Your task to perform on an android device: Turn off the flashlight Image 0: 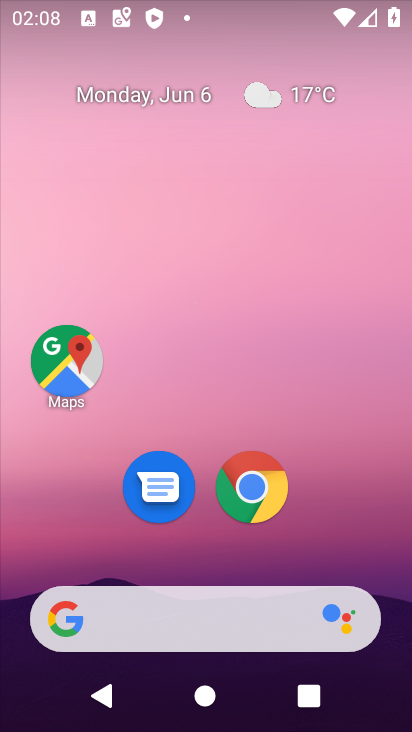
Step 0: drag from (235, 10) to (244, 460)
Your task to perform on an android device: Turn off the flashlight Image 1: 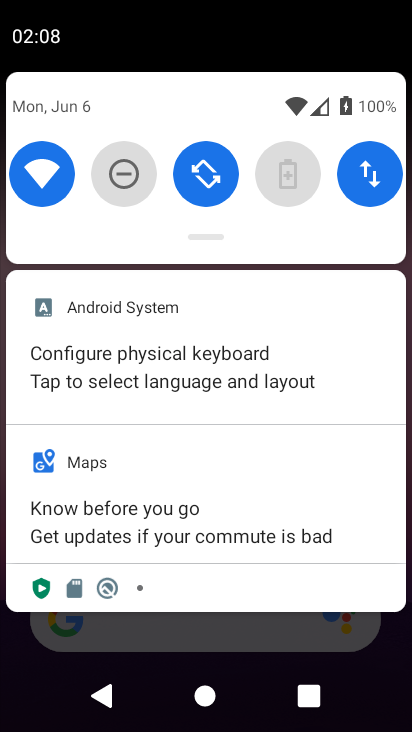
Step 1: drag from (200, 234) to (203, 469)
Your task to perform on an android device: Turn off the flashlight Image 2: 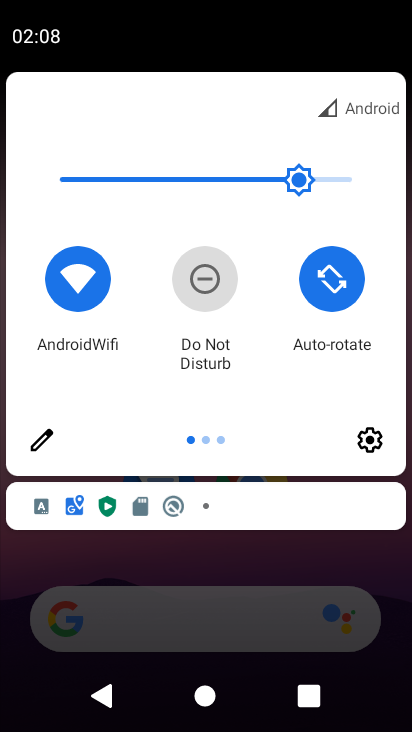
Step 2: click (34, 439)
Your task to perform on an android device: Turn off the flashlight Image 3: 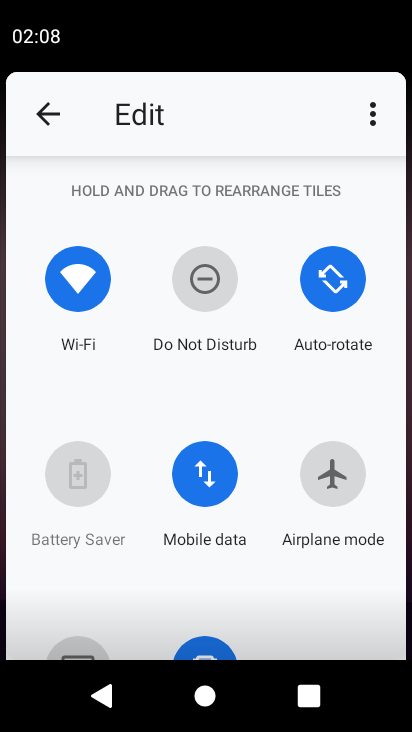
Step 3: task complete